Your task to perform on an android device: delete browsing data in the chrome app Image 0: 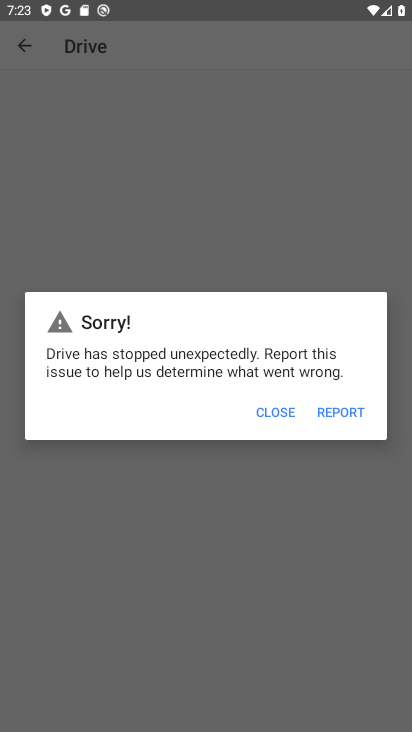
Step 0: press home button
Your task to perform on an android device: delete browsing data in the chrome app Image 1: 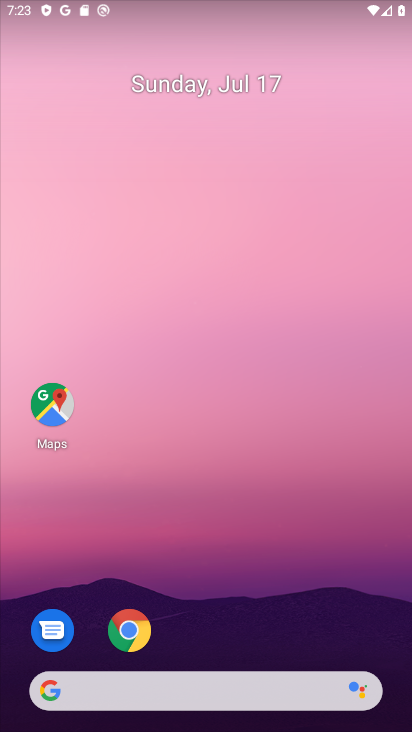
Step 1: click (129, 644)
Your task to perform on an android device: delete browsing data in the chrome app Image 2: 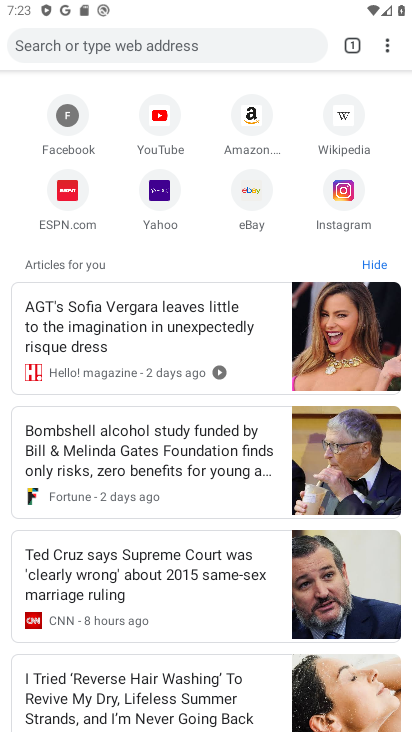
Step 2: click (383, 48)
Your task to perform on an android device: delete browsing data in the chrome app Image 3: 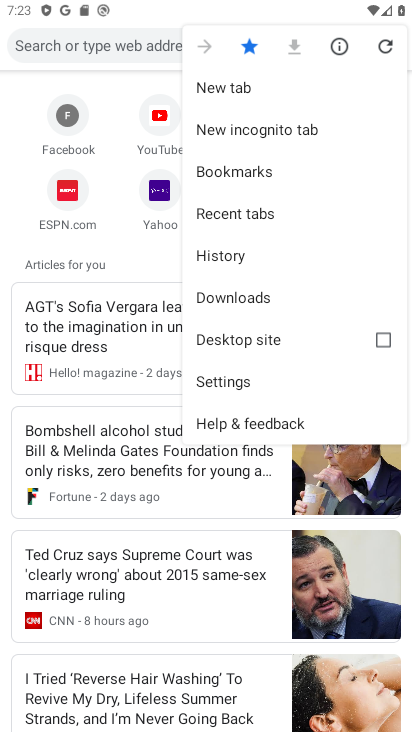
Step 3: click (247, 262)
Your task to perform on an android device: delete browsing data in the chrome app Image 4: 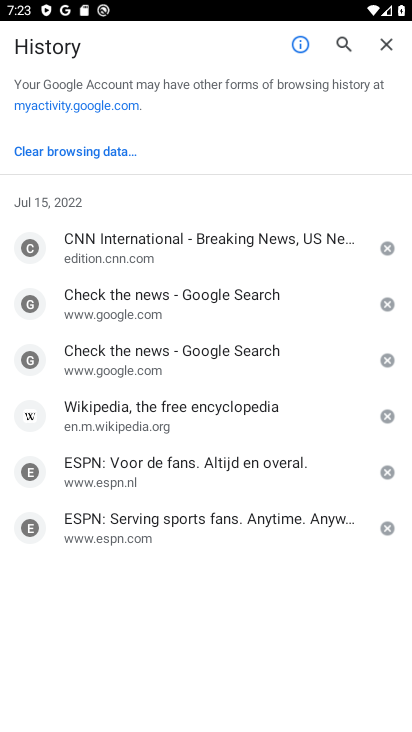
Step 4: click (33, 155)
Your task to perform on an android device: delete browsing data in the chrome app Image 5: 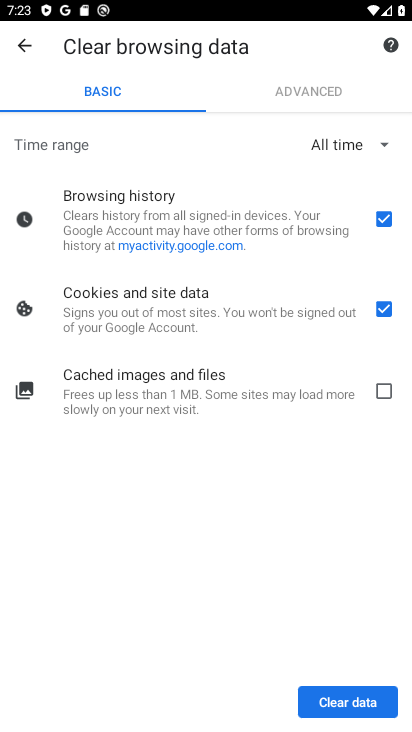
Step 5: click (386, 390)
Your task to perform on an android device: delete browsing data in the chrome app Image 6: 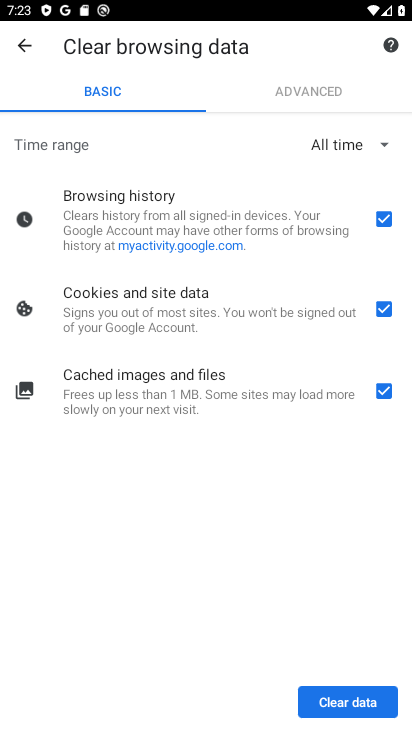
Step 6: click (340, 698)
Your task to perform on an android device: delete browsing data in the chrome app Image 7: 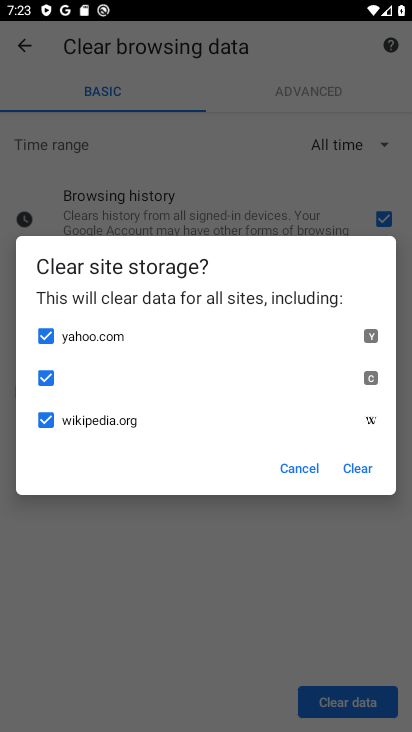
Step 7: click (347, 470)
Your task to perform on an android device: delete browsing data in the chrome app Image 8: 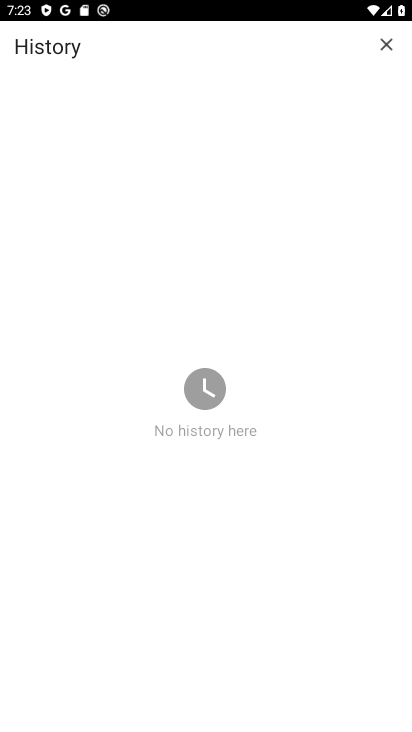
Step 8: task complete